Your task to perform on an android device: Show the shopping cart on newegg.com. Search for usb-a on newegg.com, select the first entry, and add it to the cart. Image 0: 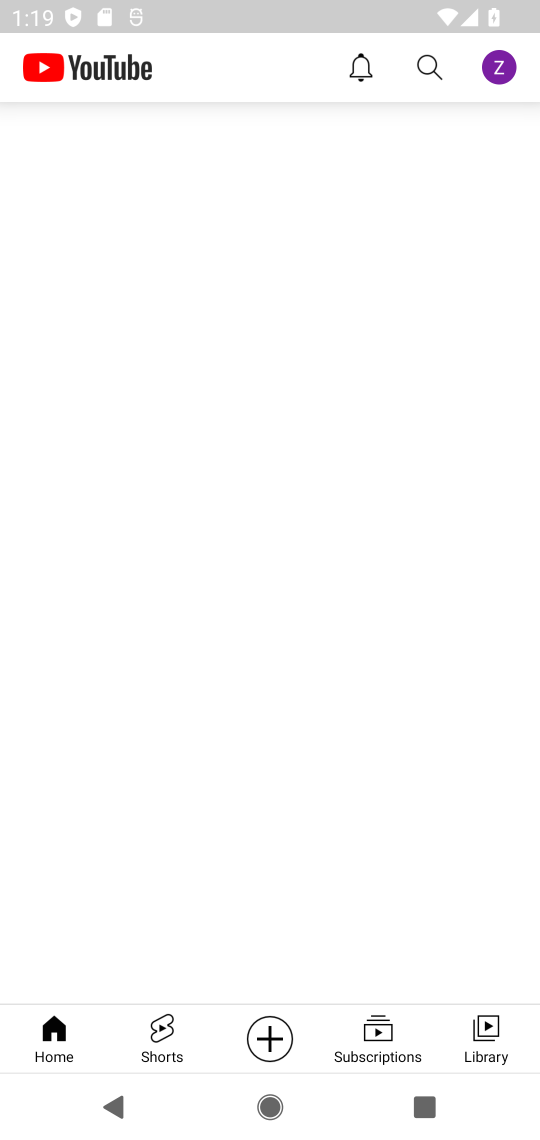
Step 0: press home button
Your task to perform on an android device: Show the shopping cart on newegg.com. Search for usb-a on newegg.com, select the first entry, and add it to the cart. Image 1: 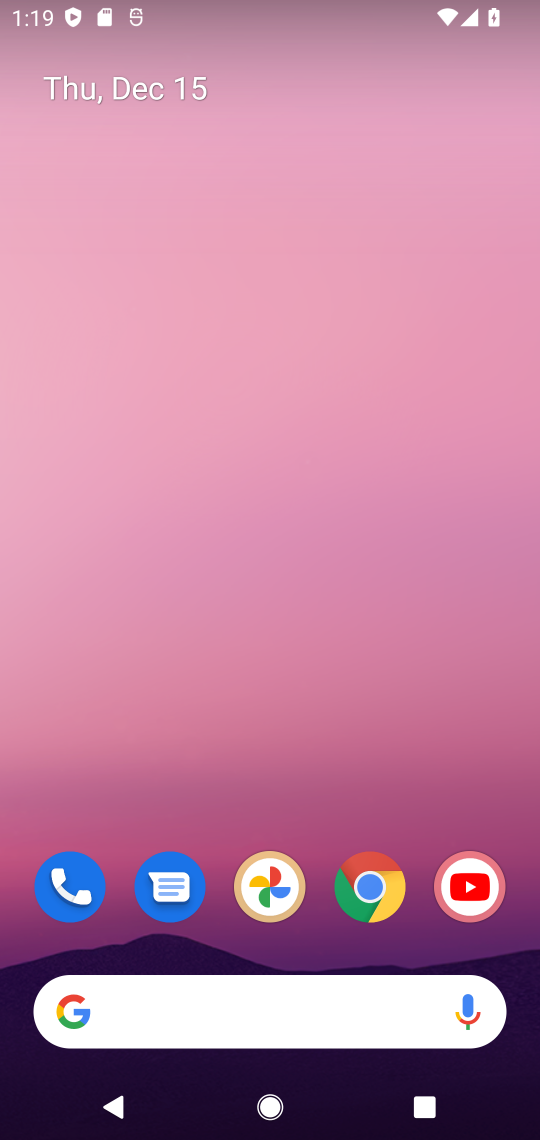
Step 1: click (369, 894)
Your task to perform on an android device: Show the shopping cart on newegg.com. Search for usb-a on newegg.com, select the first entry, and add it to the cart. Image 2: 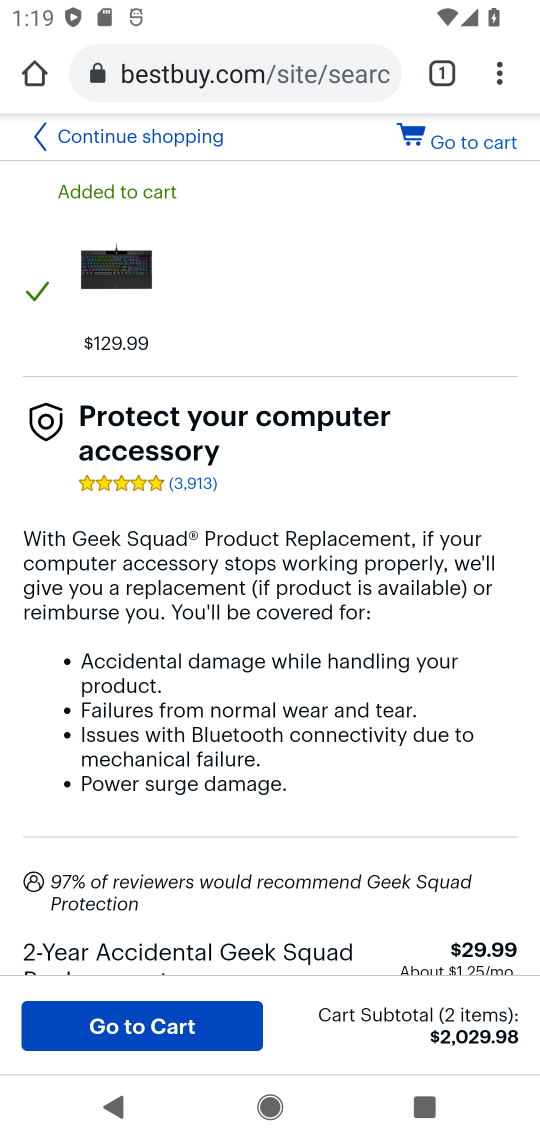
Step 2: click (187, 65)
Your task to perform on an android device: Show the shopping cart on newegg.com. Search for usb-a on newegg.com, select the first entry, and add it to the cart. Image 3: 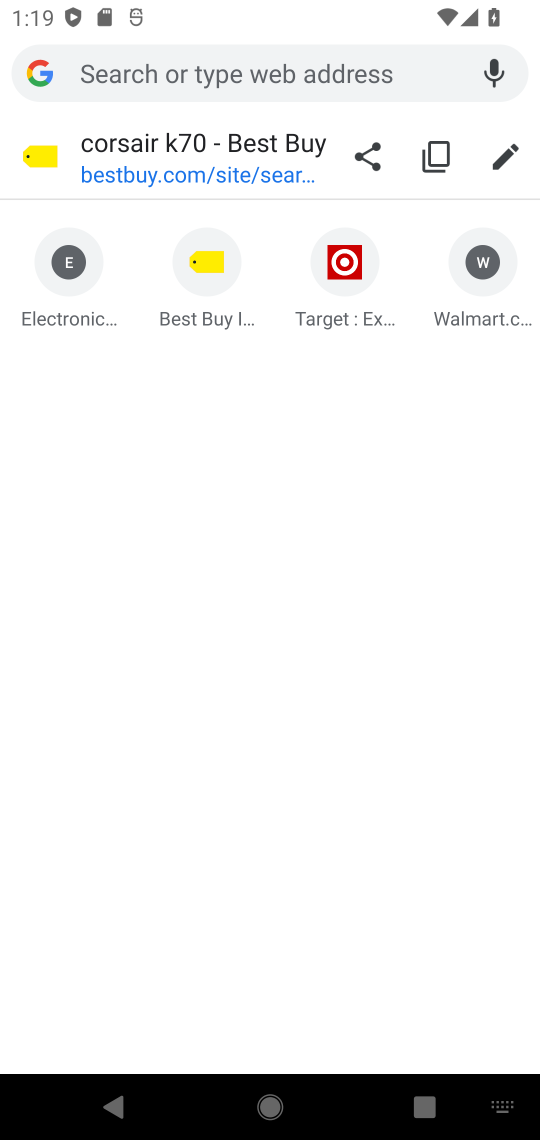
Step 3: type "newegg.com"
Your task to perform on an android device: Show the shopping cart on newegg.com. Search for usb-a on newegg.com, select the first entry, and add it to the cart. Image 4: 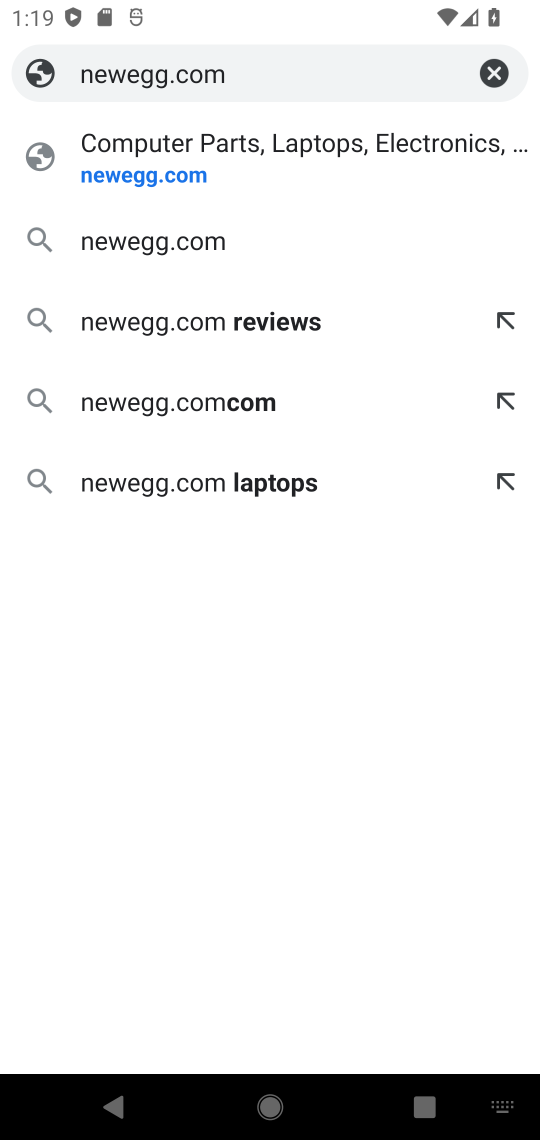
Step 4: click (94, 174)
Your task to perform on an android device: Show the shopping cart on newegg.com. Search for usb-a on newegg.com, select the first entry, and add it to the cart. Image 5: 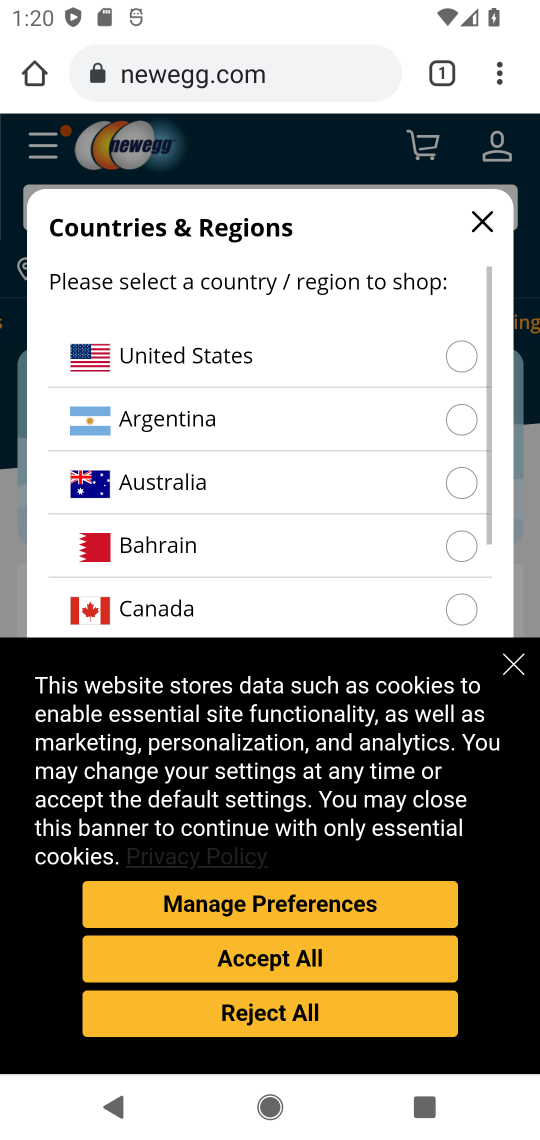
Step 5: click (517, 666)
Your task to perform on an android device: Show the shopping cart on newegg.com. Search for usb-a on newegg.com, select the first entry, and add it to the cart. Image 6: 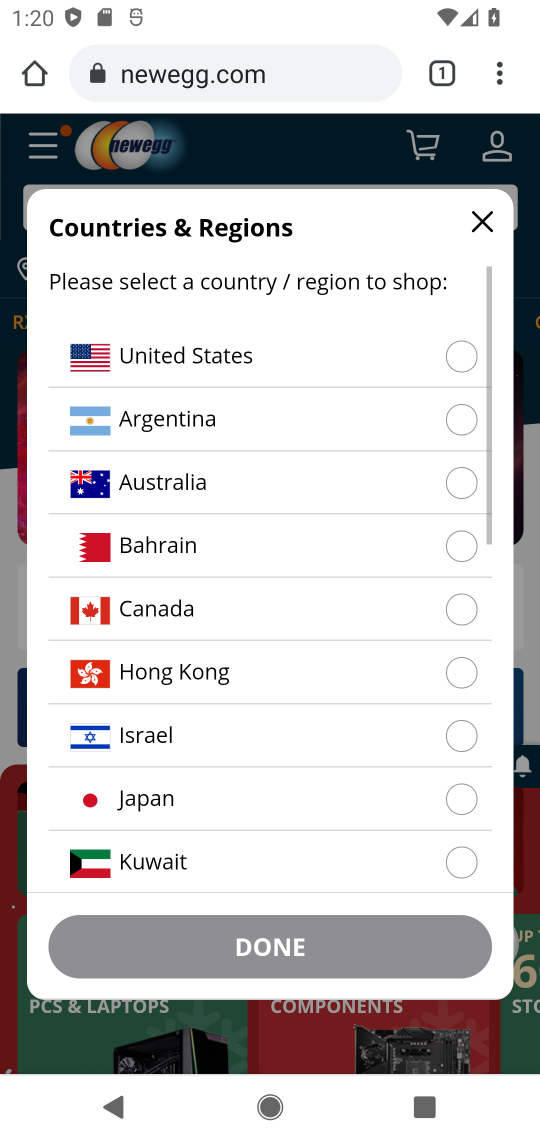
Step 6: click (172, 358)
Your task to perform on an android device: Show the shopping cart on newegg.com. Search for usb-a on newegg.com, select the first entry, and add it to the cart. Image 7: 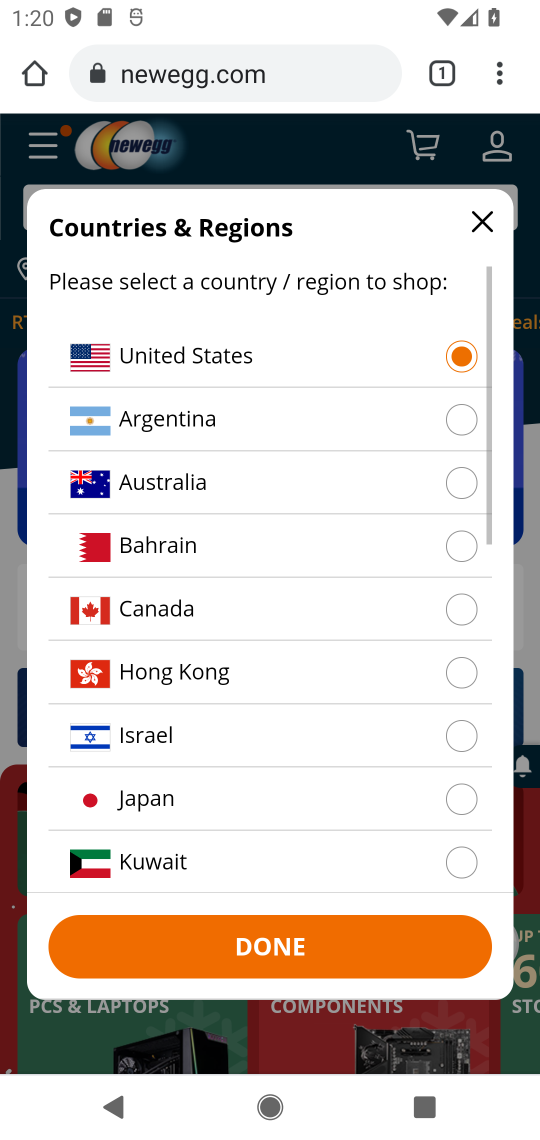
Step 7: click (267, 952)
Your task to perform on an android device: Show the shopping cart on newegg.com. Search for usb-a on newegg.com, select the first entry, and add it to the cart. Image 8: 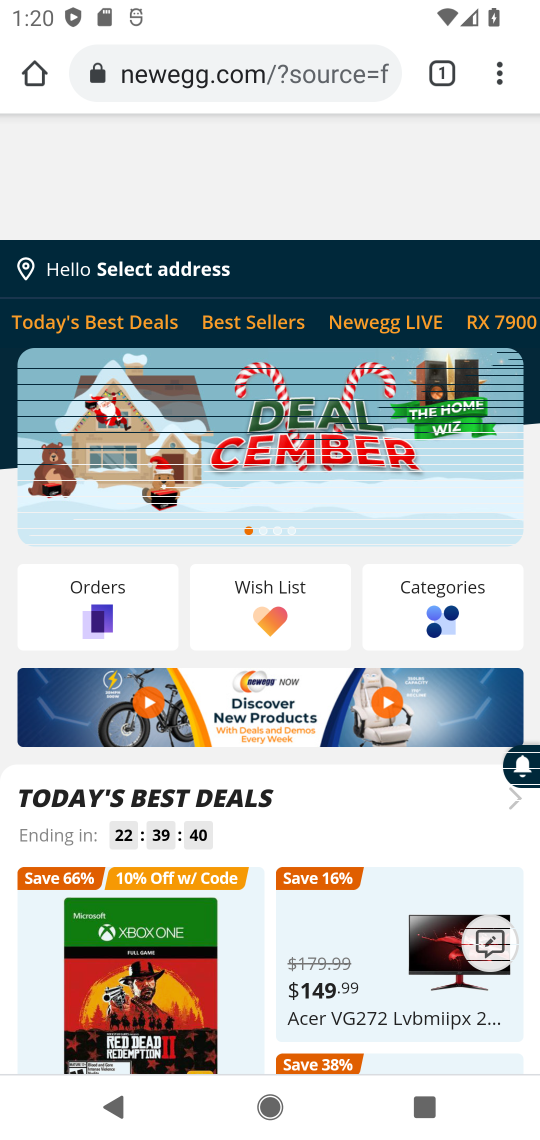
Step 8: click (414, 154)
Your task to perform on an android device: Show the shopping cart on newegg.com. Search for usb-a on newegg.com, select the first entry, and add it to the cart. Image 9: 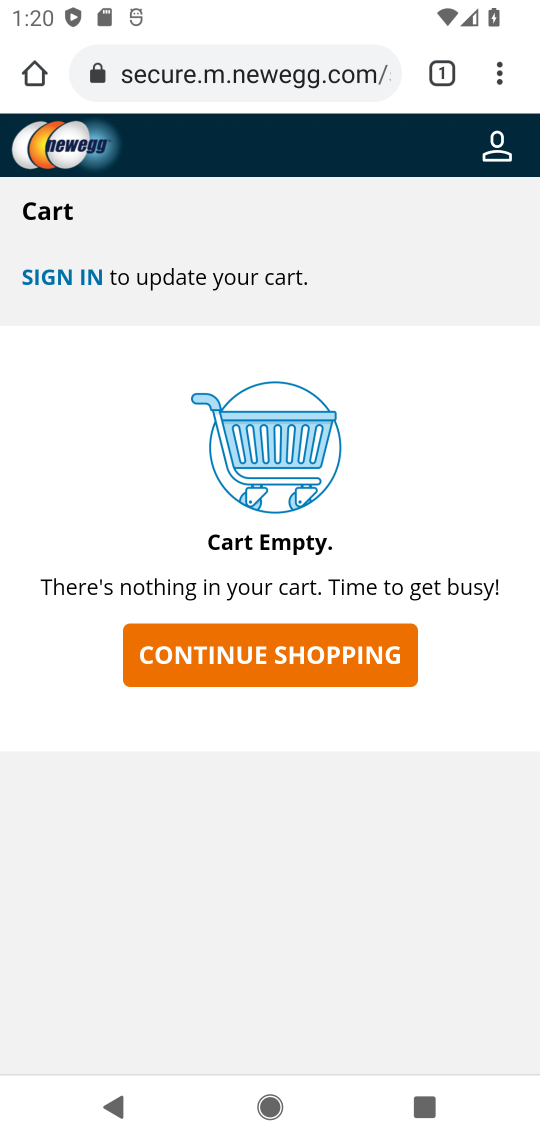
Step 9: click (234, 654)
Your task to perform on an android device: Show the shopping cart on newegg.com. Search for usb-a on newegg.com, select the first entry, and add it to the cart. Image 10: 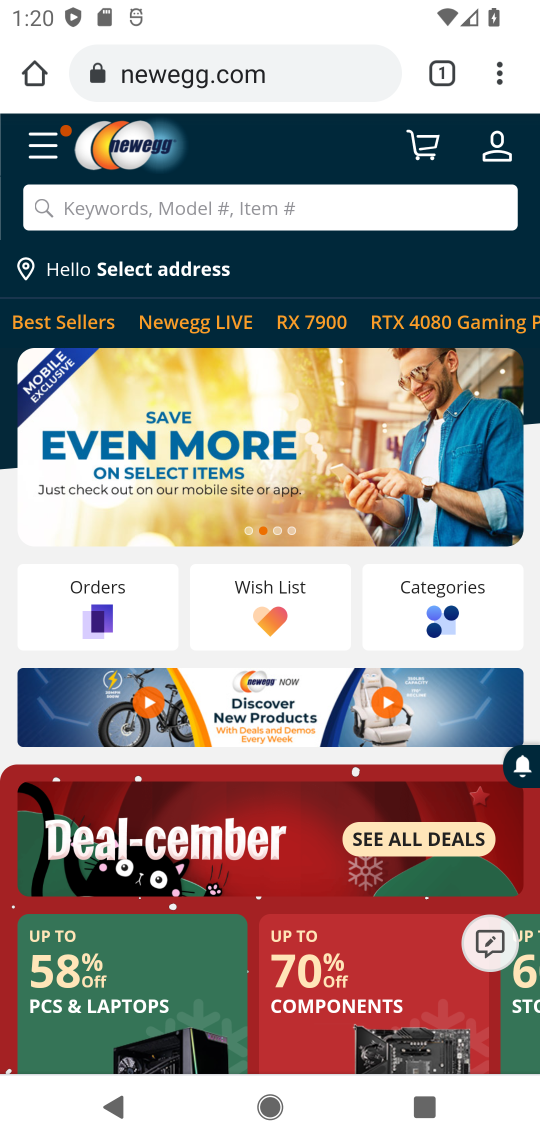
Step 10: click (167, 206)
Your task to perform on an android device: Show the shopping cart on newegg.com. Search for usb-a on newegg.com, select the first entry, and add it to the cart. Image 11: 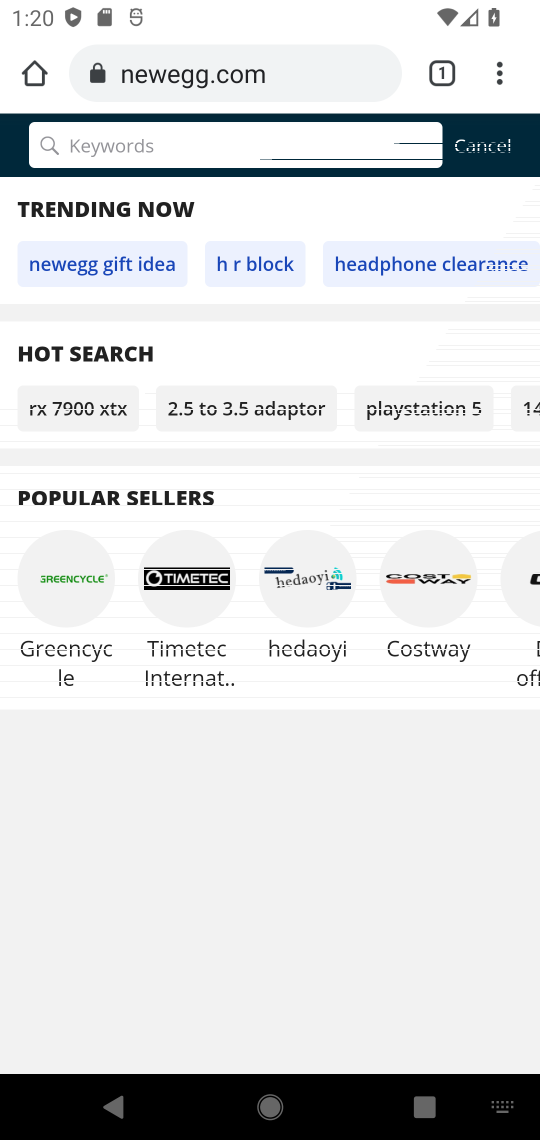
Step 11: type "usb-a"
Your task to perform on an android device: Show the shopping cart on newegg.com. Search for usb-a on newegg.com, select the first entry, and add it to the cart. Image 12: 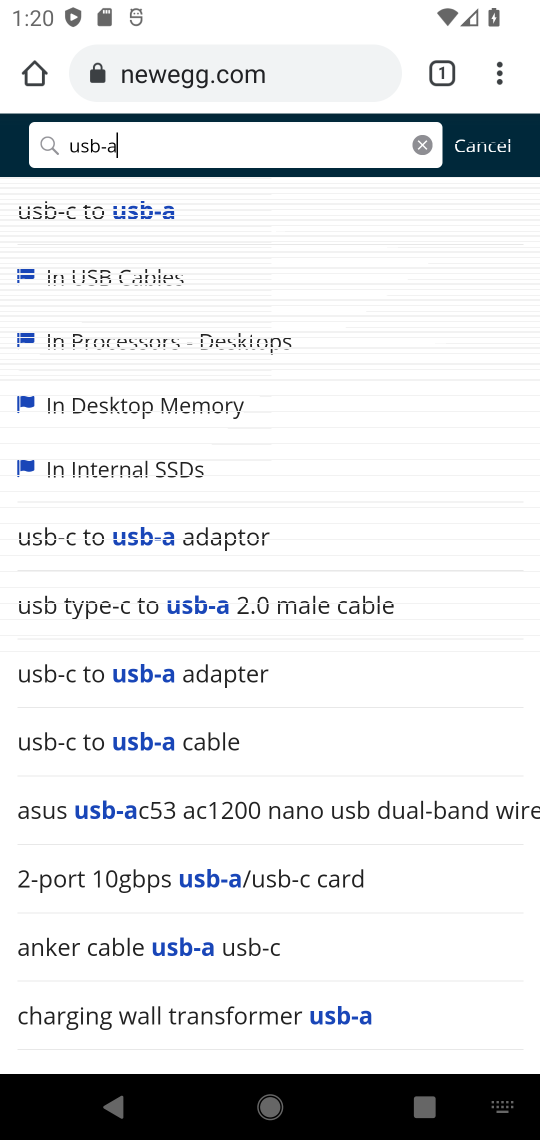
Step 12: drag from (133, 553) to (138, 340)
Your task to perform on an android device: Show the shopping cart on newegg.com. Search for usb-a on newegg.com, select the first entry, and add it to the cart. Image 13: 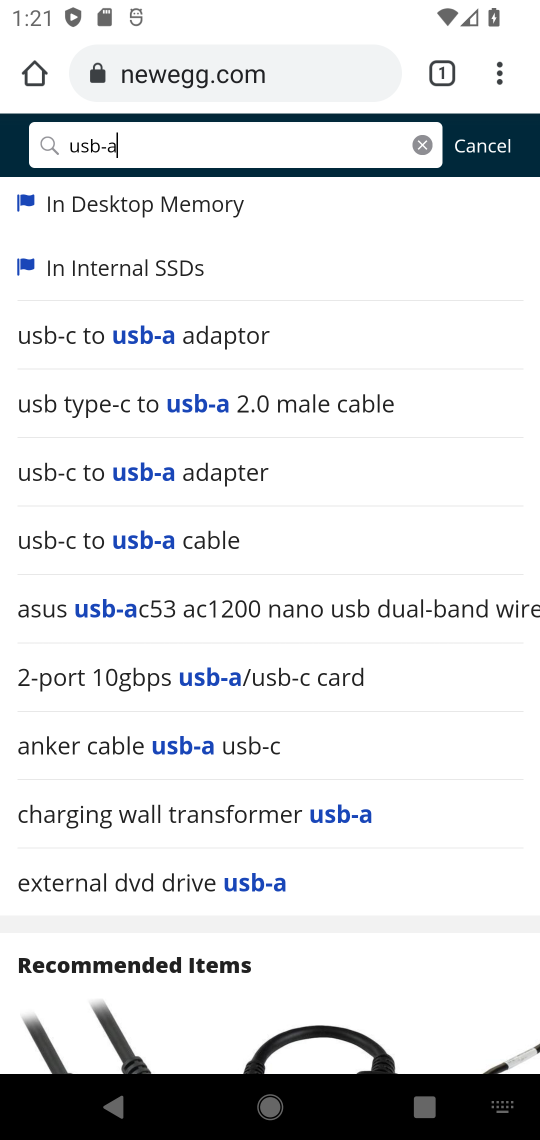
Step 13: drag from (180, 645) to (171, 769)
Your task to perform on an android device: Show the shopping cart on newegg.com. Search for usb-a on newegg.com, select the first entry, and add it to the cart. Image 14: 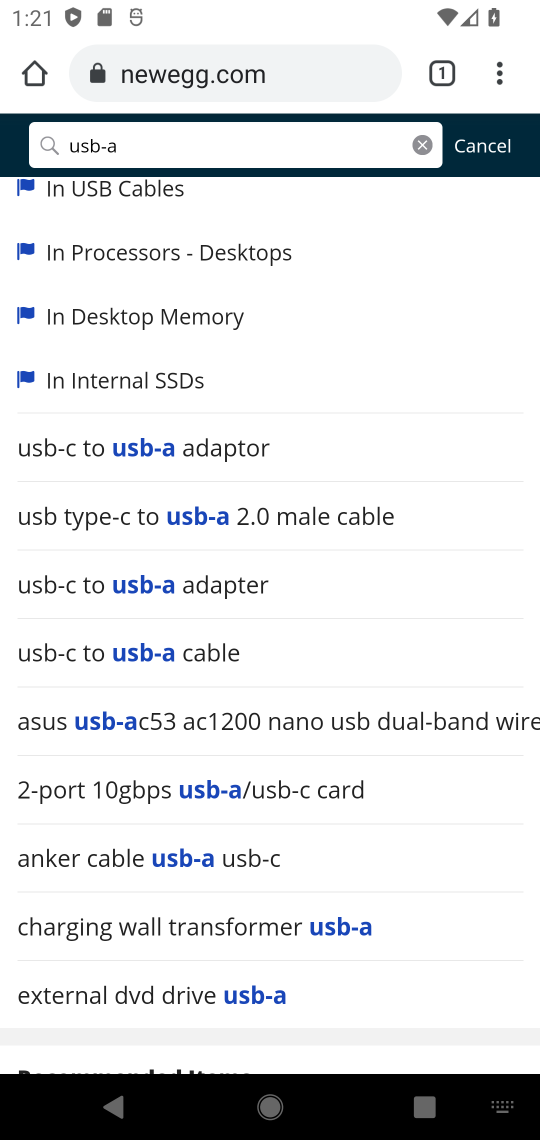
Step 14: drag from (110, 348) to (93, 591)
Your task to perform on an android device: Show the shopping cart on newegg.com. Search for usb-a on newegg.com, select the first entry, and add it to the cart. Image 15: 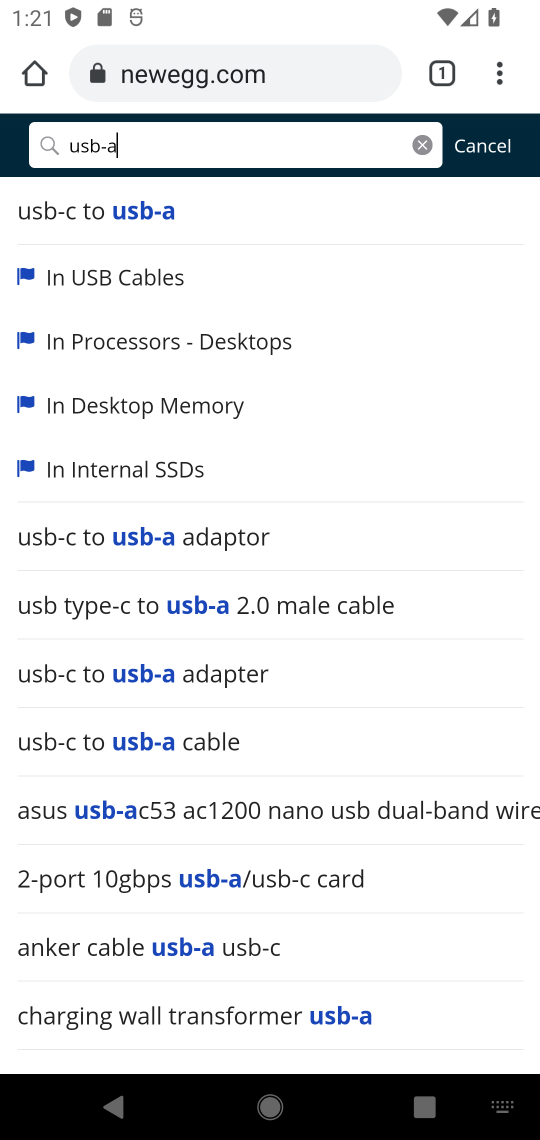
Step 15: click (102, 216)
Your task to perform on an android device: Show the shopping cart on newegg.com. Search for usb-a on newegg.com, select the first entry, and add it to the cart. Image 16: 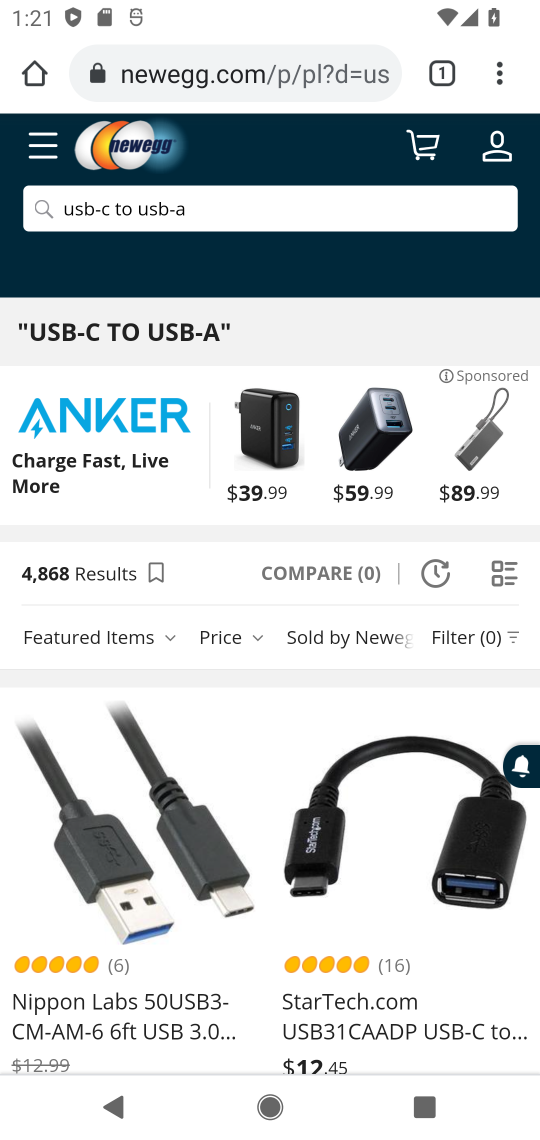
Step 16: drag from (130, 693) to (133, 454)
Your task to perform on an android device: Show the shopping cart on newegg.com. Search for usb-a on newegg.com, select the first entry, and add it to the cart. Image 17: 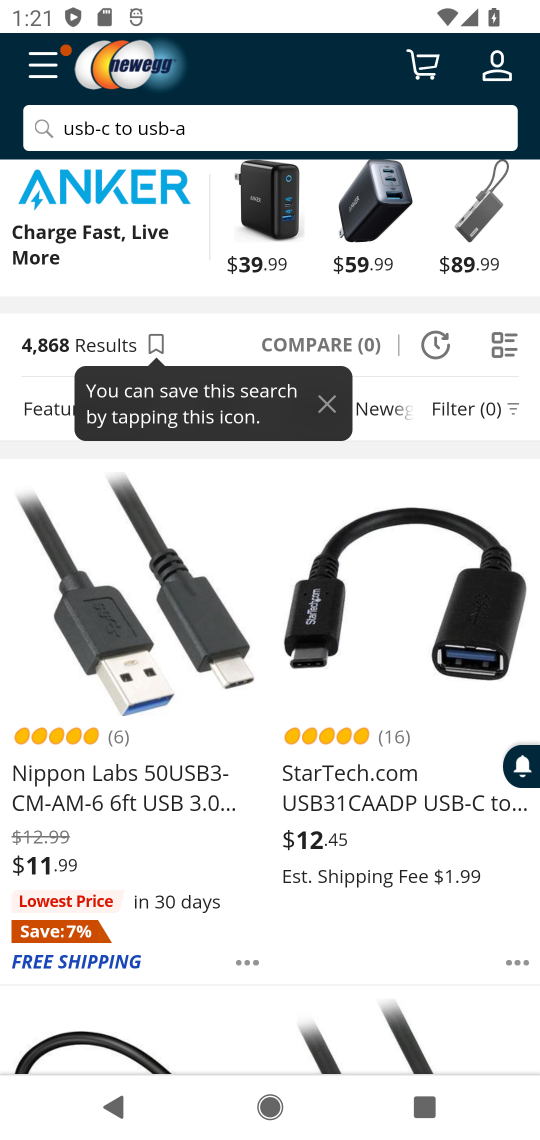
Step 17: click (143, 807)
Your task to perform on an android device: Show the shopping cart on newegg.com. Search for usb-a on newegg.com, select the first entry, and add it to the cart. Image 18: 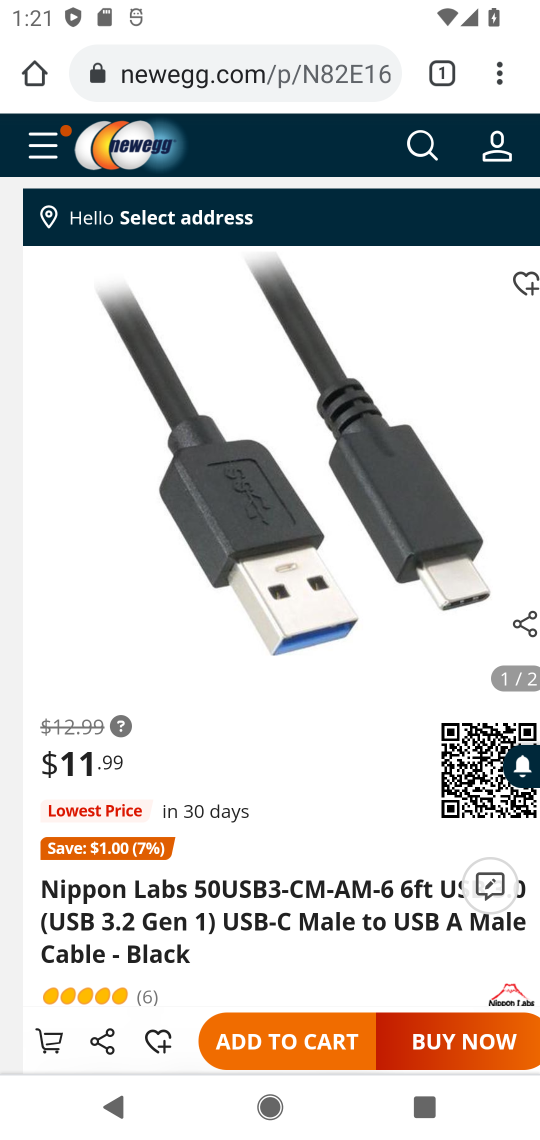
Step 18: drag from (212, 909) to (213, 760)
Your task to perform on an android device: Show the shopping cart on newegg.com. Search for usb-a on newegg.com, select the first entry, and add it to the cart. Image 19: 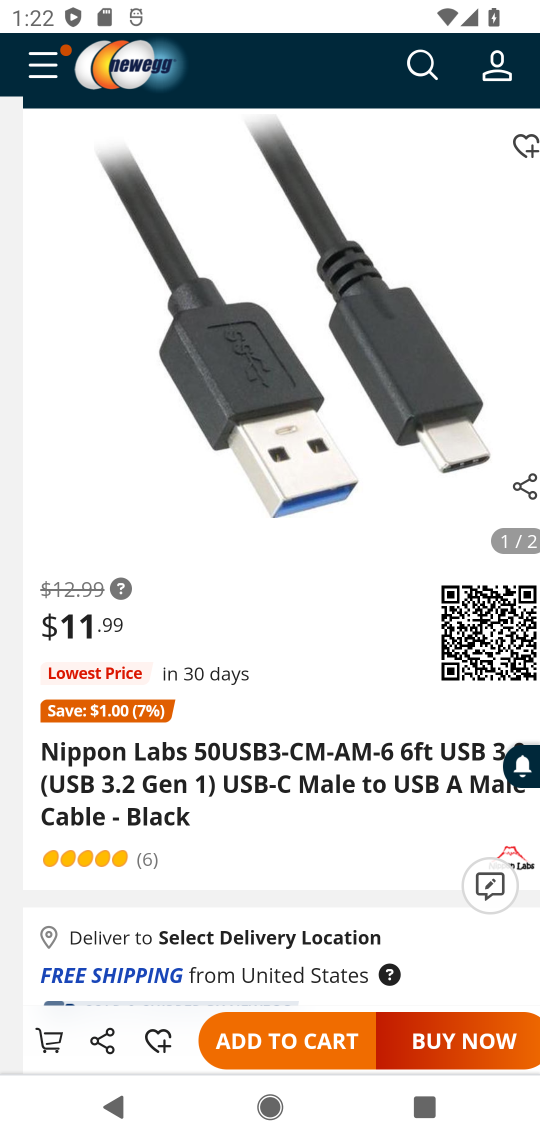
Step 19: drag from (219, 800) to (213, 471)
Your task to perform on an android device: Show the shopping cart on newegg.com. Search for usb-a on newegg.com, select the first entry, and add it to the cart. Image 20: 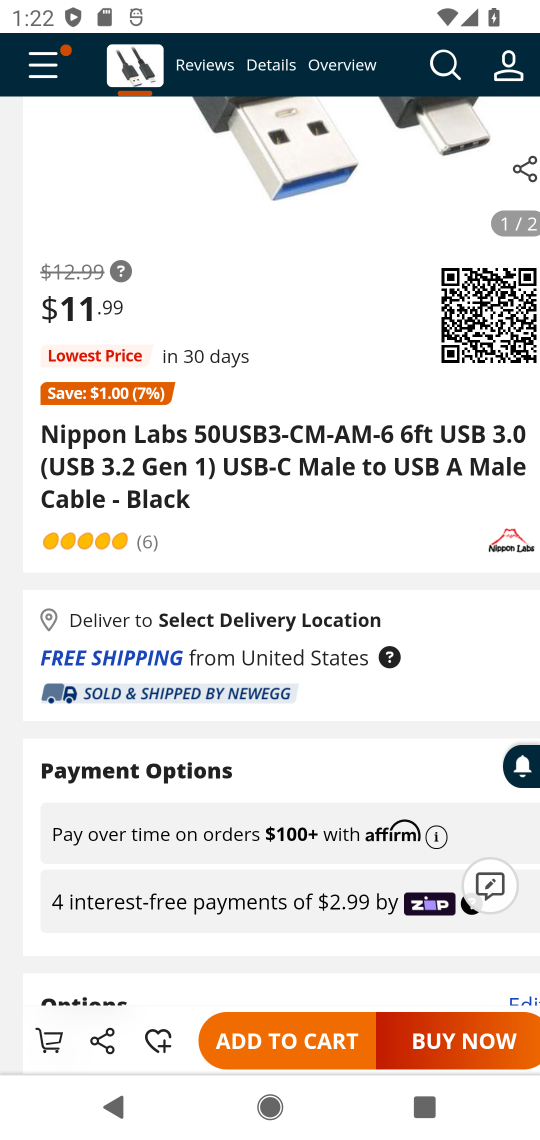
Step 20: click (283, 1044)
Your task to perform on an android device: Show the shopping cart on newegg.com. Search for usb-a on newegg.com, select the first entry, and add it to the cart. Image 21: 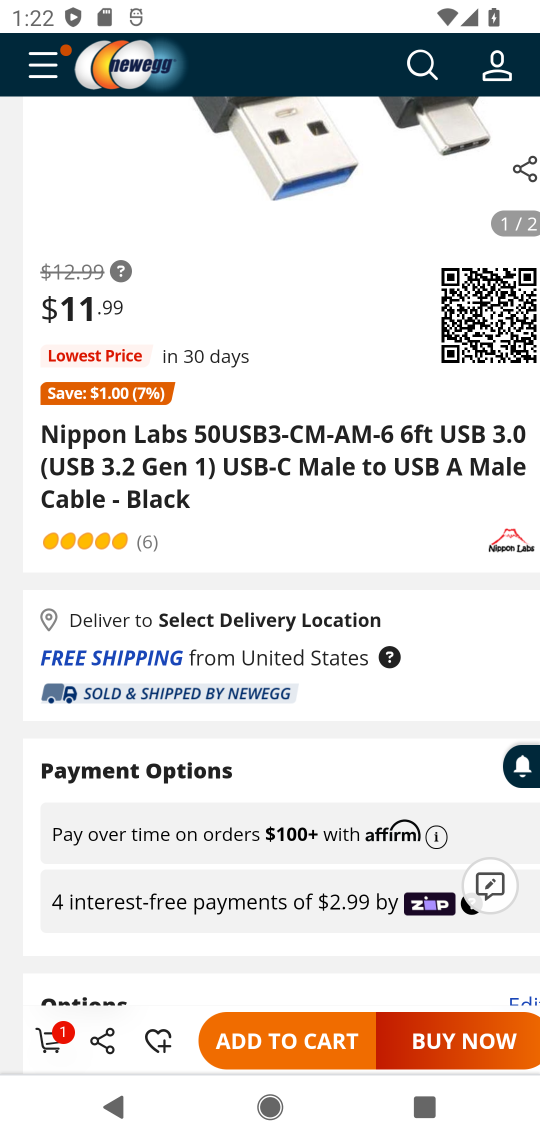
Step 21: task complete